Your task to perform on an android device: set the stopwatch Image 0: 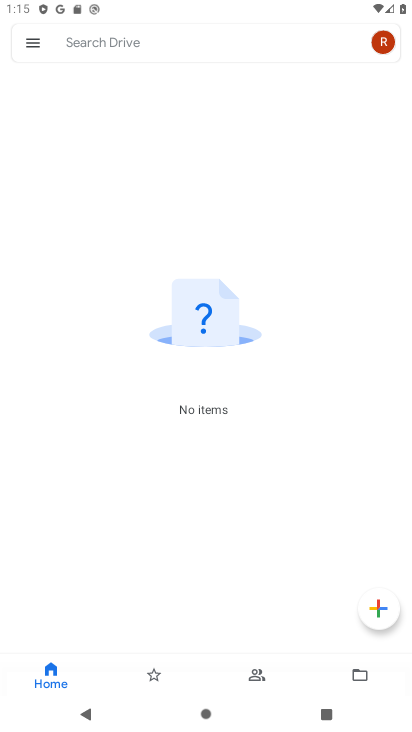
Step 0: press home button
Your task to perform on an android device: set the stopwatch Image 1: 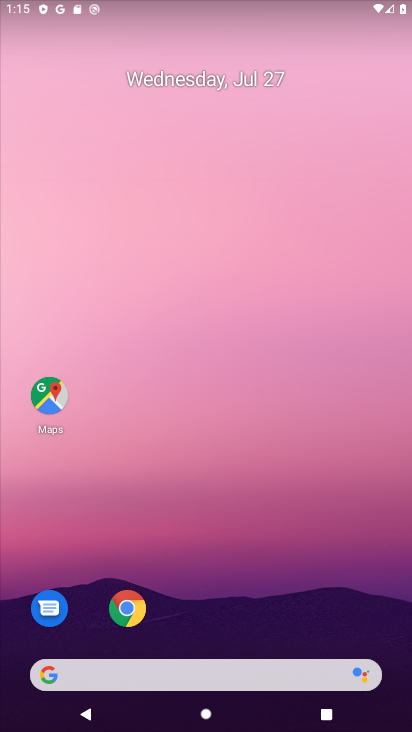
Step 1: drag from (170, 547) to (192, 121)
Your task to perform on an android device: set the stopwatch Image 2: 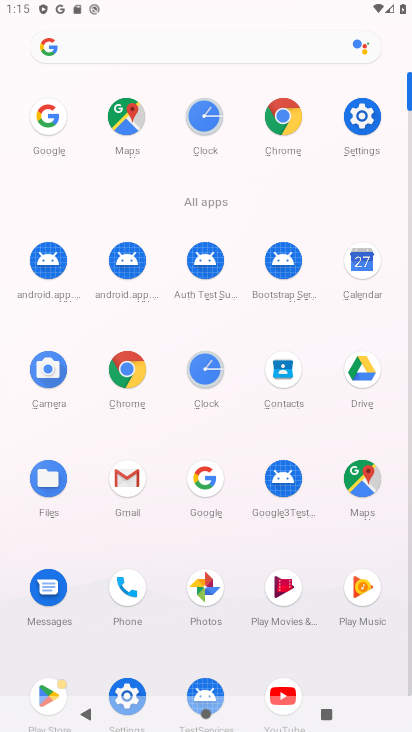
Step 2: click (199, 123)
Your task to perform on an android device: set the stopwatch Image 3: 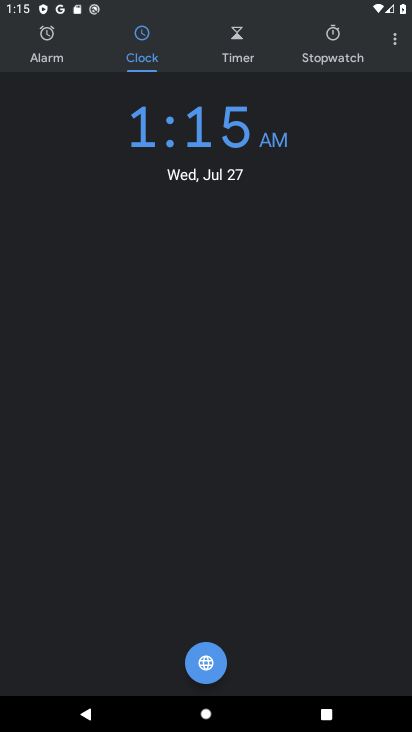
Step 3: click (317, 54)
Your task to perform on an android device: set the stopwatch Image 4: 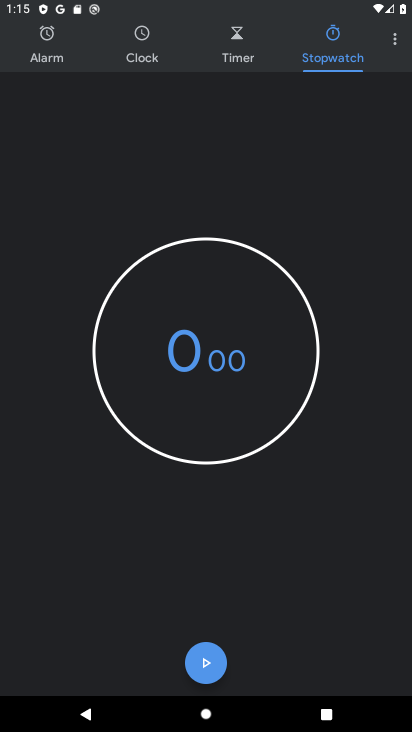
Step 4: click (202, 660)
Your task to perform on an android device: set the stopwatch Image 5: 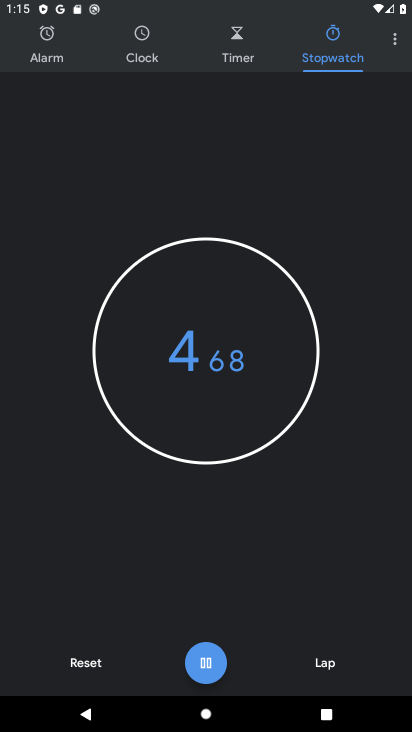
Step 5: click (202, 662)
Your task to perform on an android device: set the stopwatch Image 6: 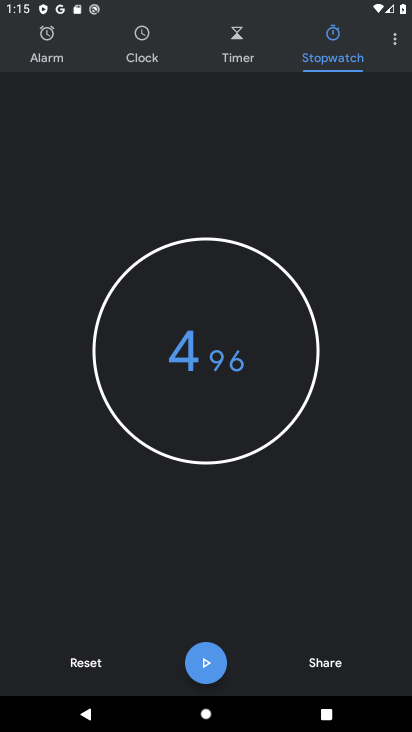
Step 6: task complete